Your task to perform on an android device: install app "Move to iOS" Image 0: 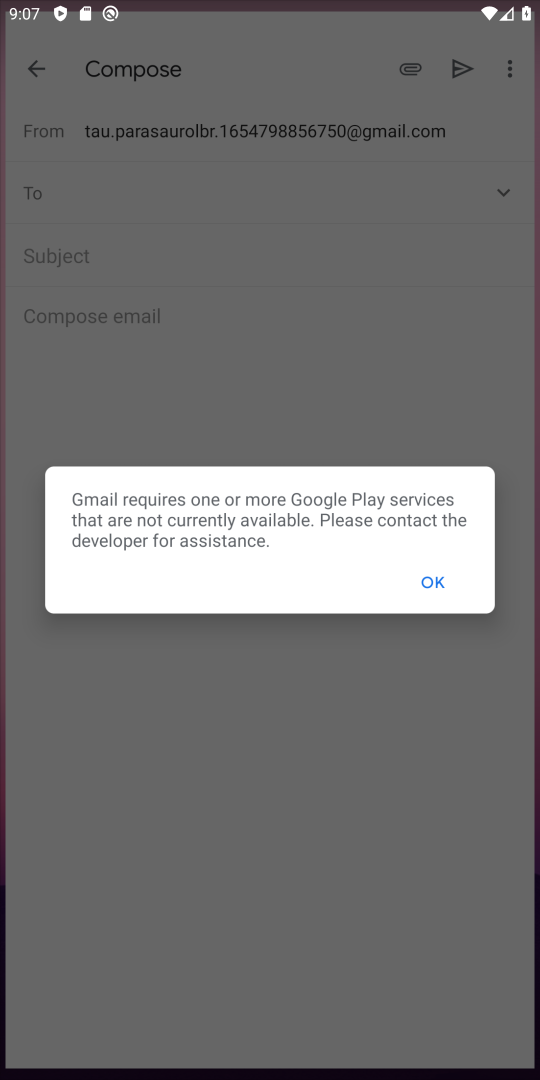
Step 0: drag from (322, 733) to (276, 381)
Your task to perform on an android device: install app "Move to iOS" Image 1: 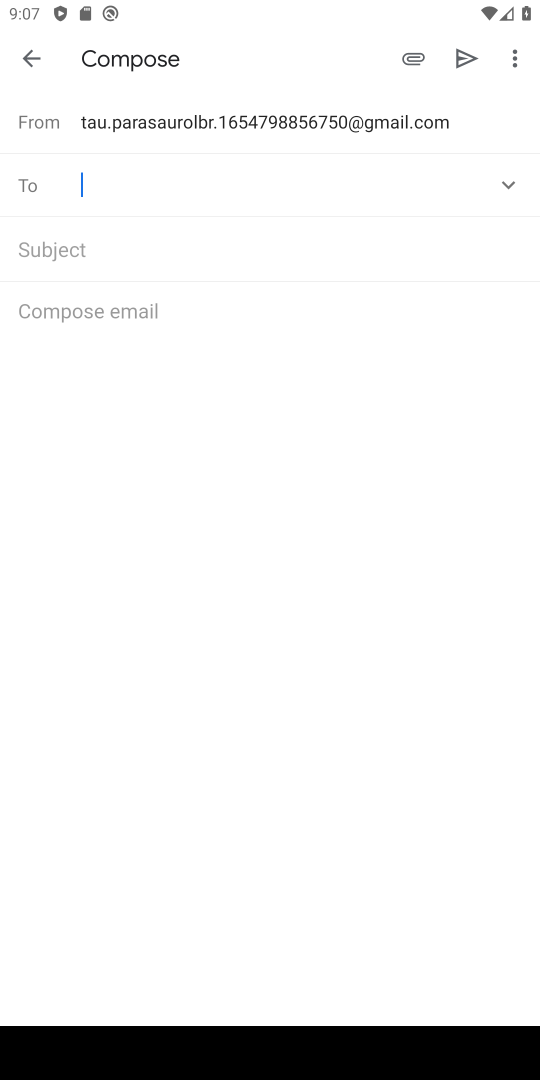
Step 1: press home button
Your task to perform on an android device: install app "Move to iOS" Image 2: 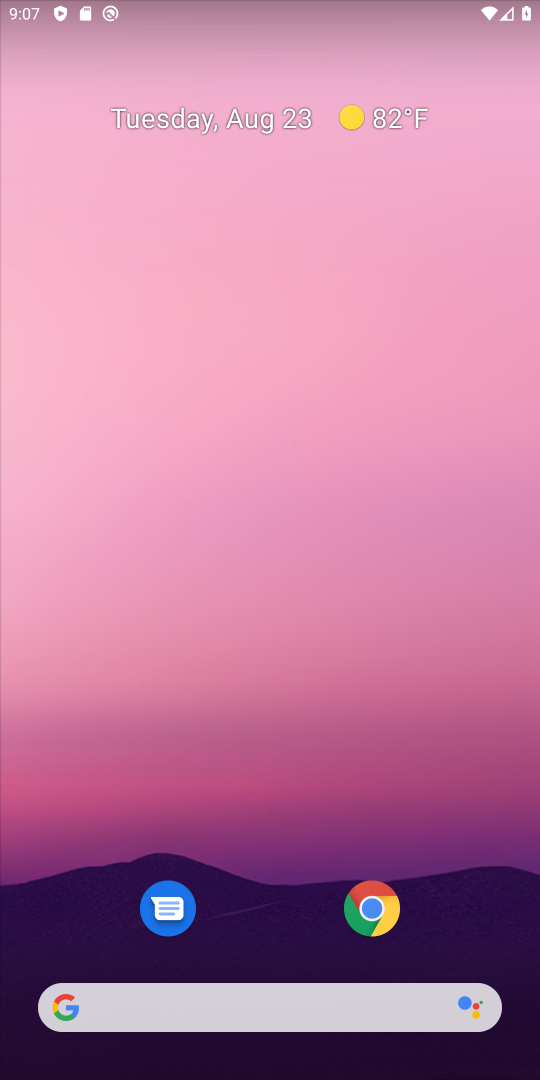
Step 2: drag from (255, 957) to (413, 26)
Your task to perform on an android device: install app "Move to iOS" Image 3: 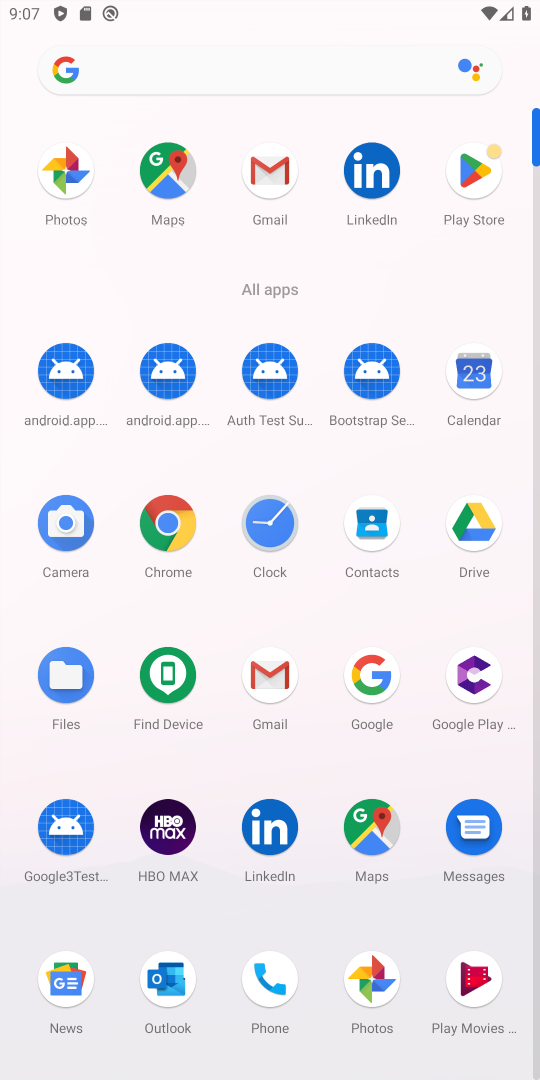
Step 3: click (468, 183)
Your task to perform on an android device: install app "Move to iOS" Image 4: 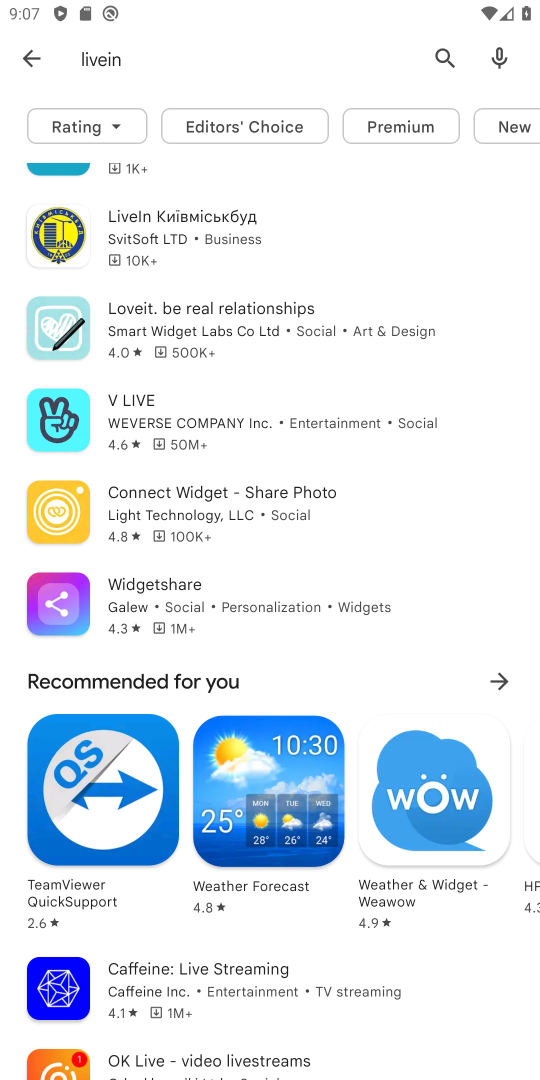
Step 4: click (157, 59)
Your task to perform on an android device: install app "Move to iOS" Image 5: 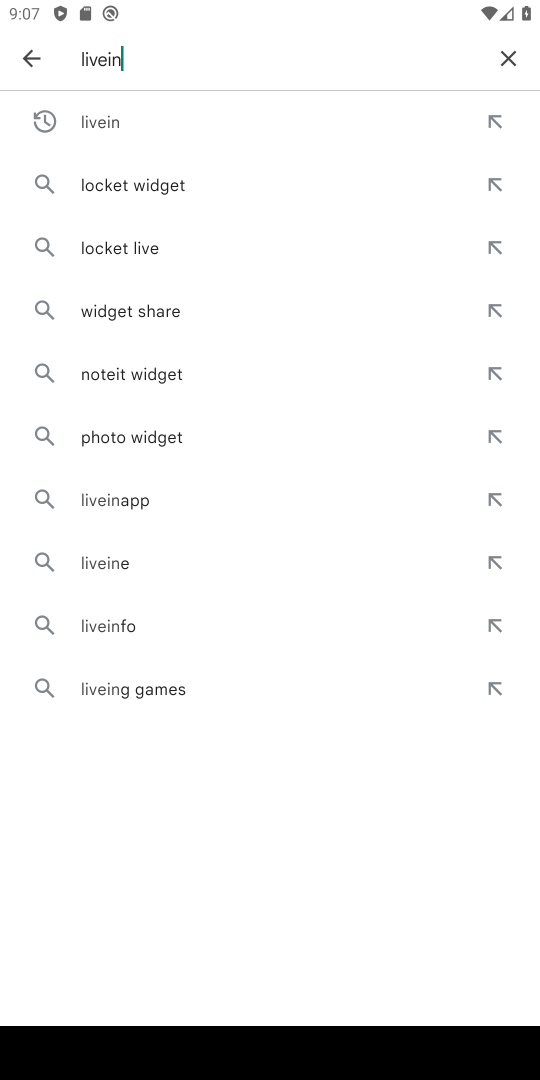
Step 5: click (508, 56)
Your task to perform on an android device: install app "Move to iOS" Image 6: 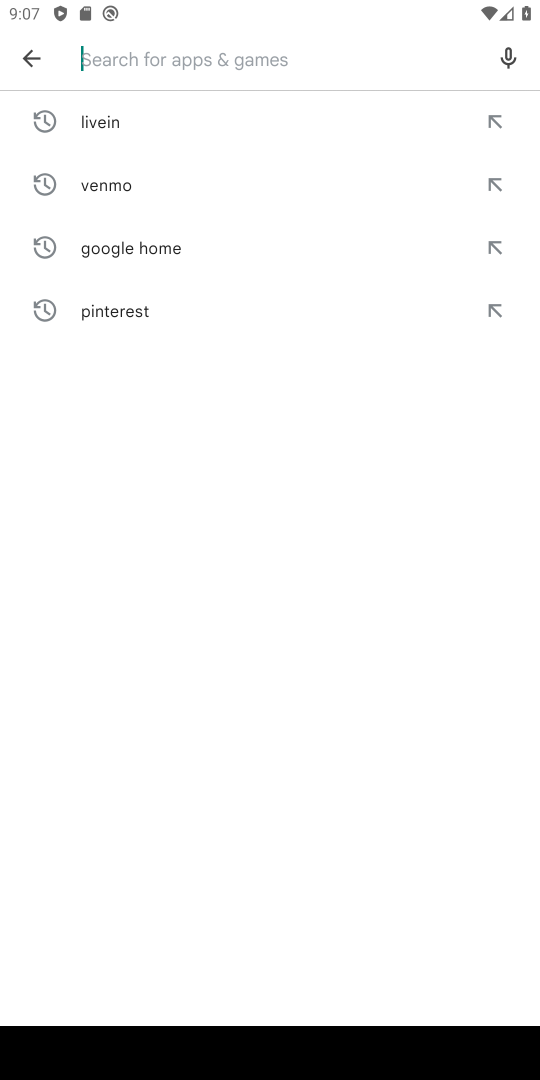
Step 6: type "move to ios"
Your task to perform on an android device: install app "Move to iOS" Image 7: 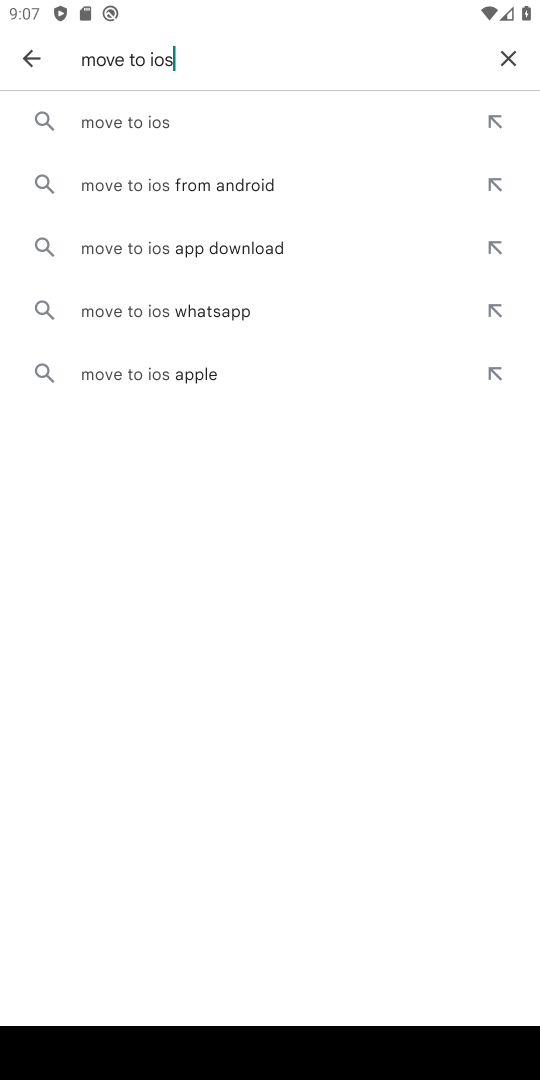
Step 7: click (183, 119)
Your task to perform on an android device: install app "Move to iOS" Image 8: 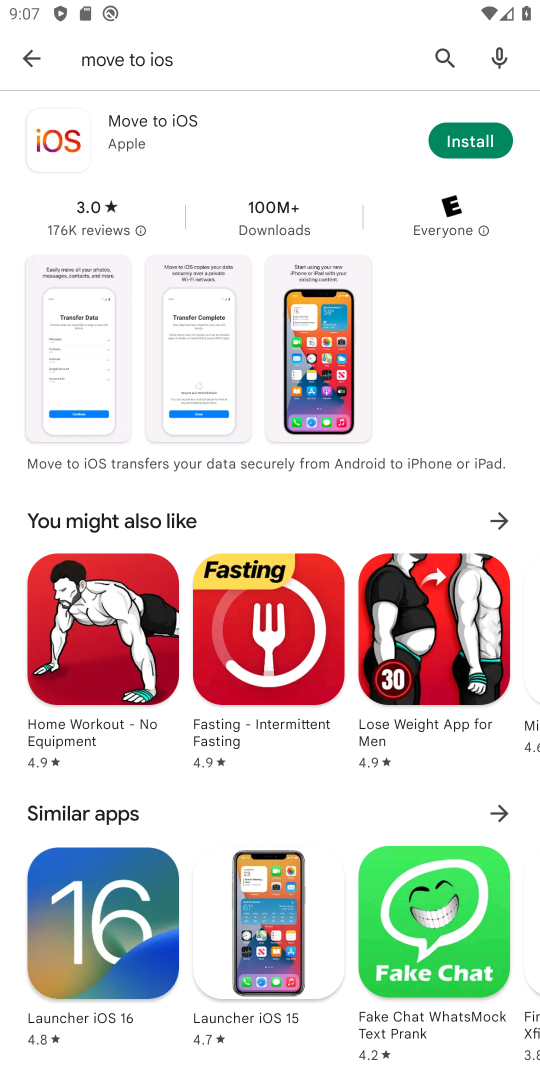
Step 8: click (468, 132)
Your task to perform on an android device: install app "Move to iOS" Image 9: 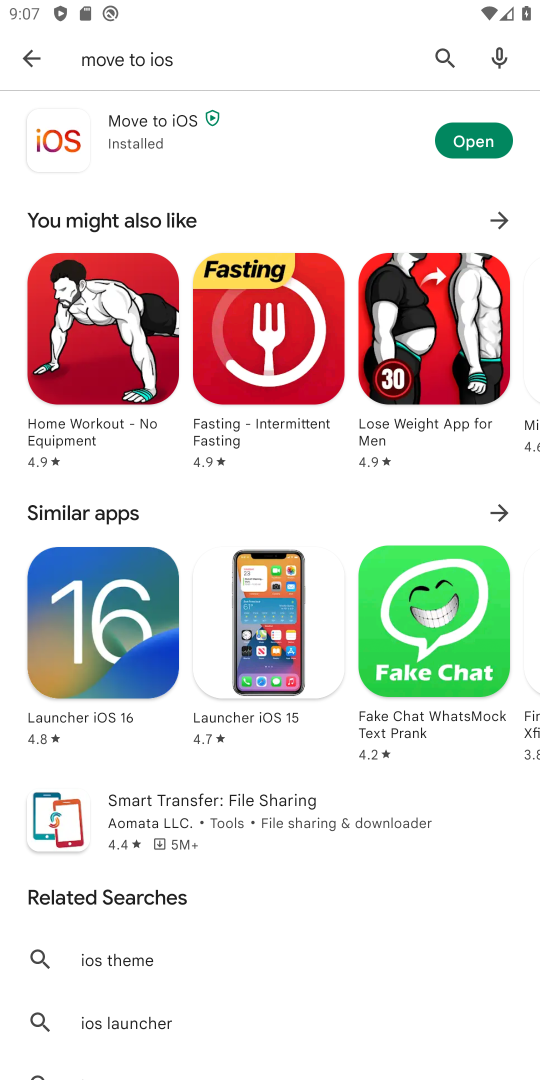
Step 9: task complete